Your task to perform on an android device: Empty the shopping cart on newegg.com. Add razer blackwidow to the cart on newegg.com Image 0: 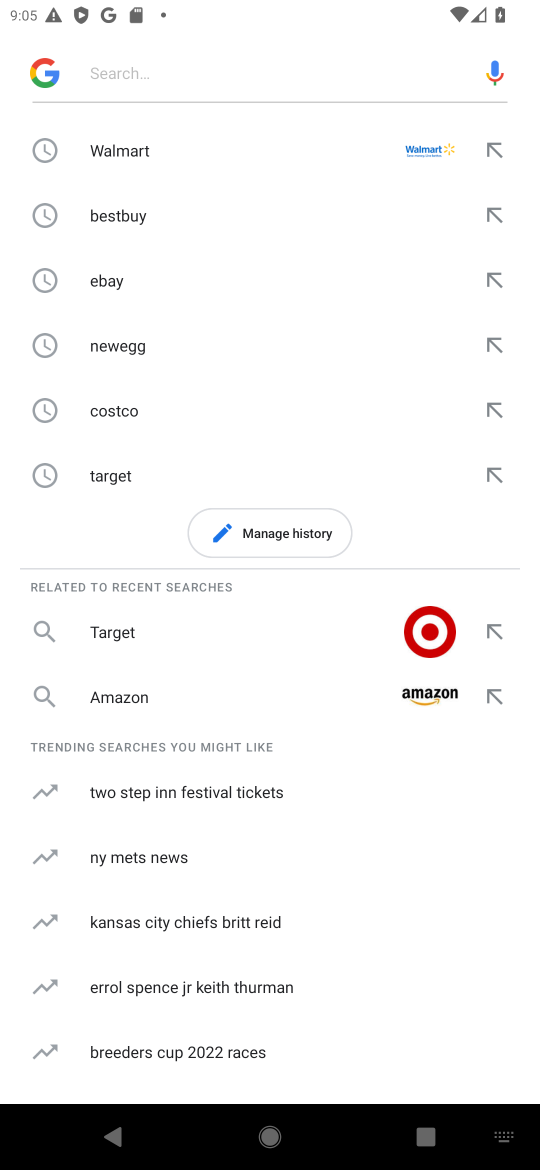
Step 0: type "newegg.com"
Your task to perform on an android device: Empty the shopping cart on newegg.com. Add razer blackwidow to the cart on newegg.com Image 1: 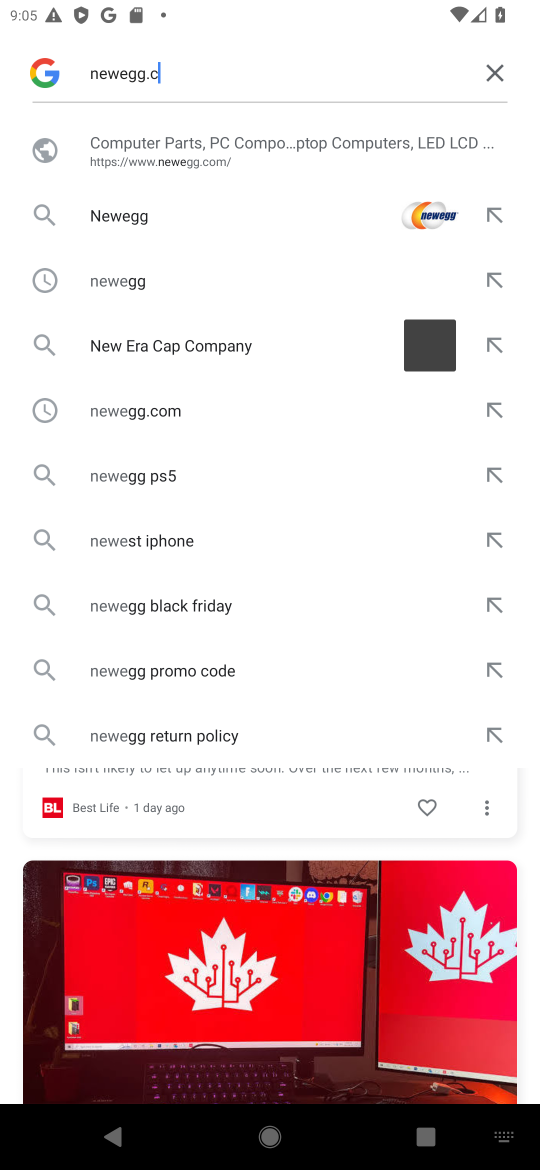
Step 1: type ""
Your task to perform on an android device: Empty the shopping cart on newegg.com. Add razer blackwidow to the cart on newegg.com Image 2: 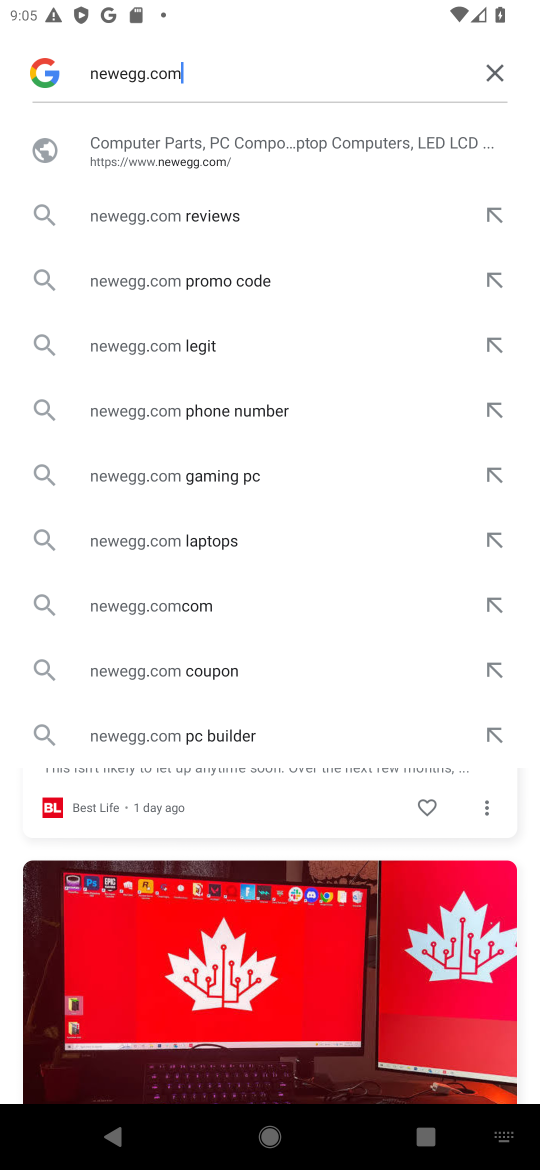
Step 2: click (231, 152)
Your task to perform on an android device: Empty the shopping cart on newegg.com. Add razer blackwidow to the cart on newegg.com Image 3: 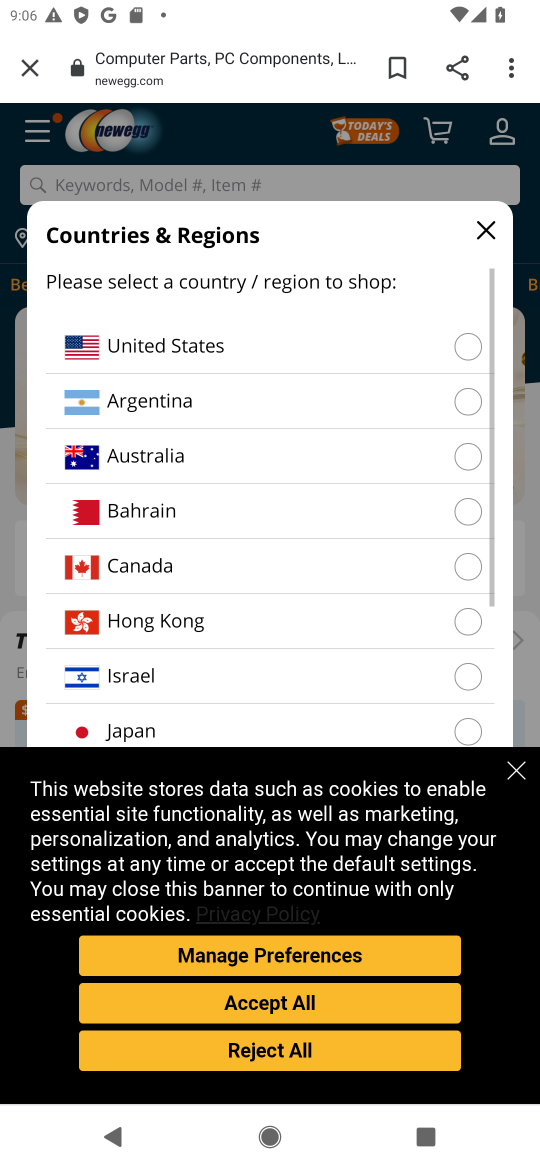
Step 3: click (303, 331)
Your task to perform on an android device: Empty the shopping cart on newegg.com. Add razer blackwidow to the cart on newegg.com Image 4: 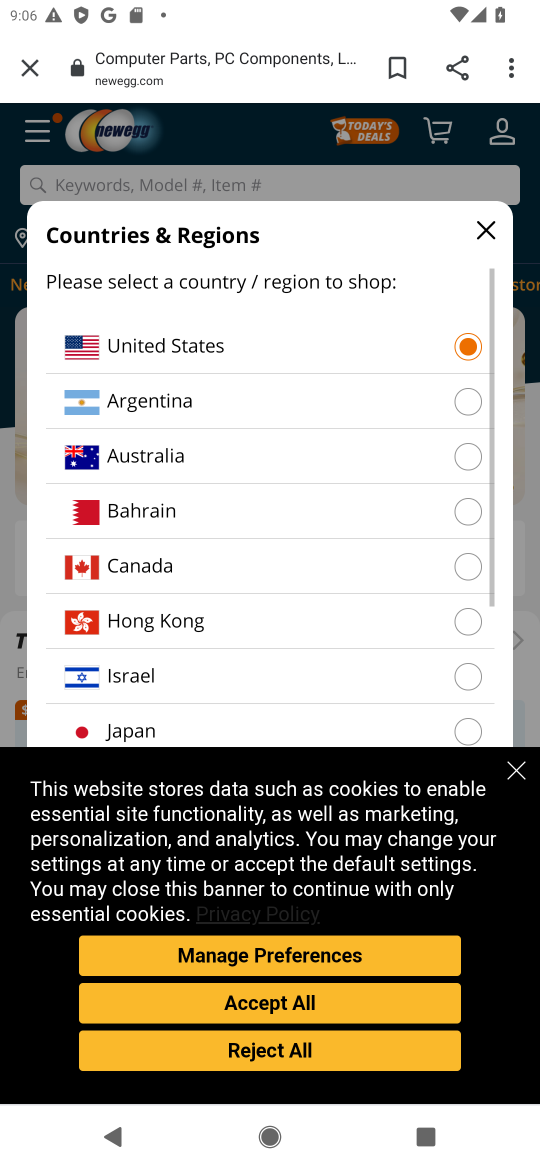
Step 4: drag from (332, 480) to (344, 192)
Your task to perform on an android device: Empty the shopping cart on newegg.com. Add razer blackwidow to the cart on newegg.com Image 5: 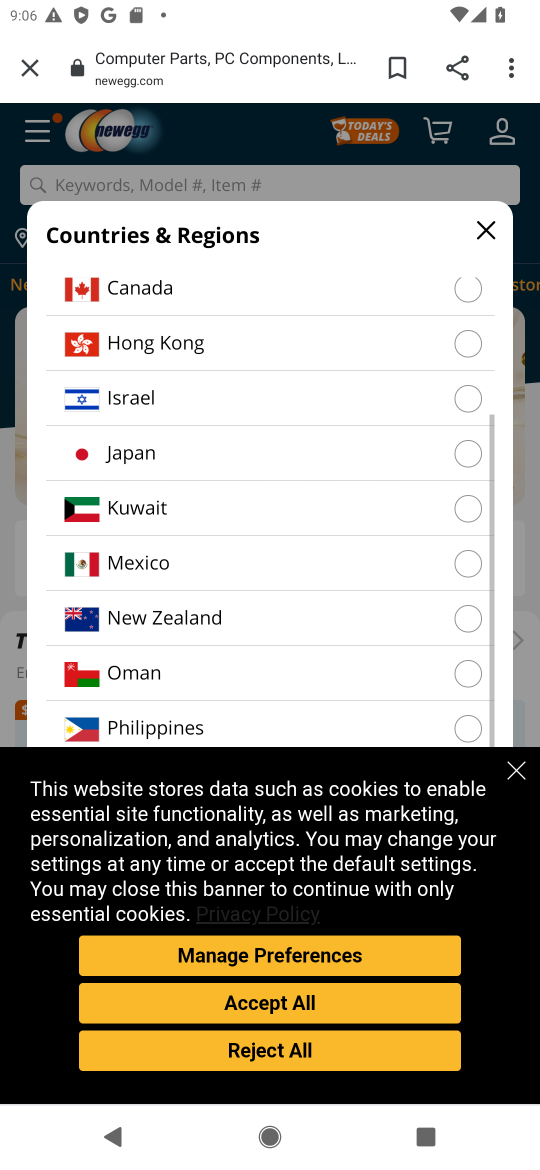
Step 5: drag from (316, 452) to (346, 265)
Your task to perform on an android device: Empty the shopping cart on newegg.com. Add razer blackwidow to the cart on newegg.com Image 6: 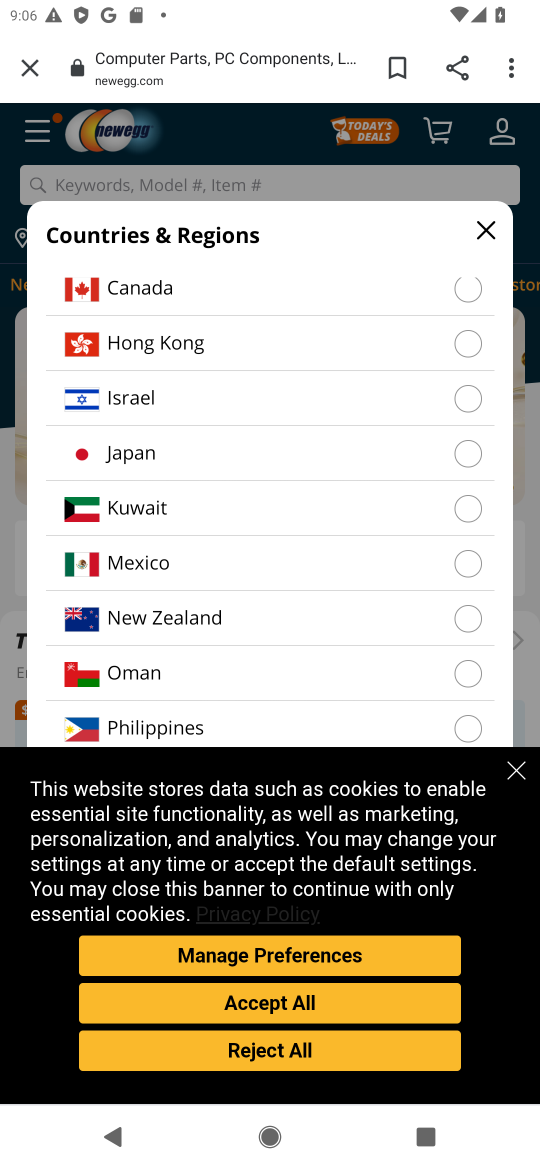
Step 6: drag from (315, 615) to (337, 309)
Your task to perform on an android device: Empty the shopping cart on newegg.com. Add razer blackwidow to the cart on newegg.com Image 7: 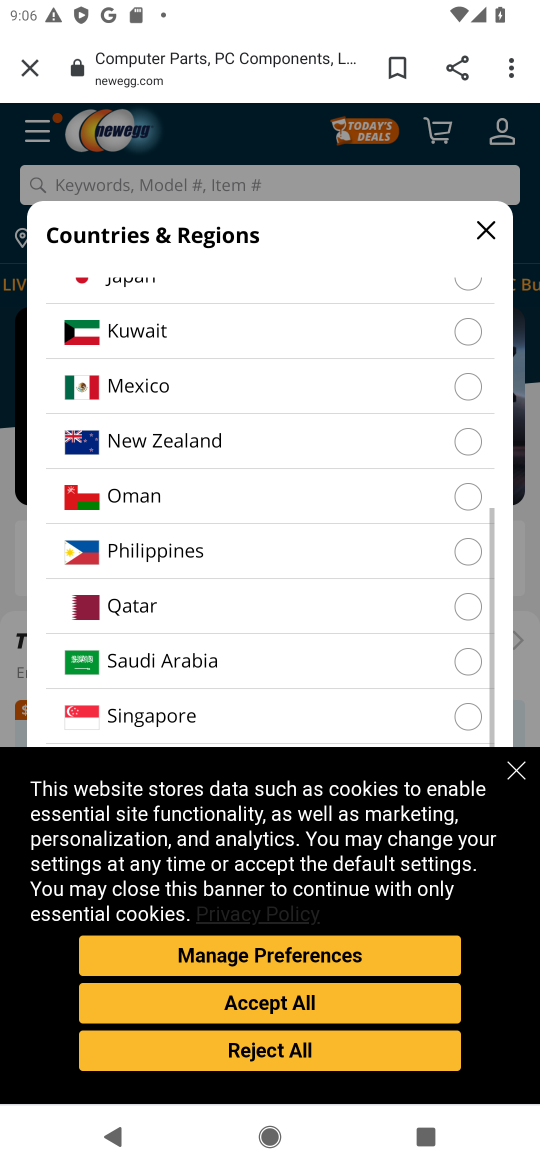
Step 7: drag from (304, 389) to (309, 314)
Your task to perform on an android device: Empty the shopping cart on newegg.com. Add razer blackwidow to the cart on newegg.com Image 8: 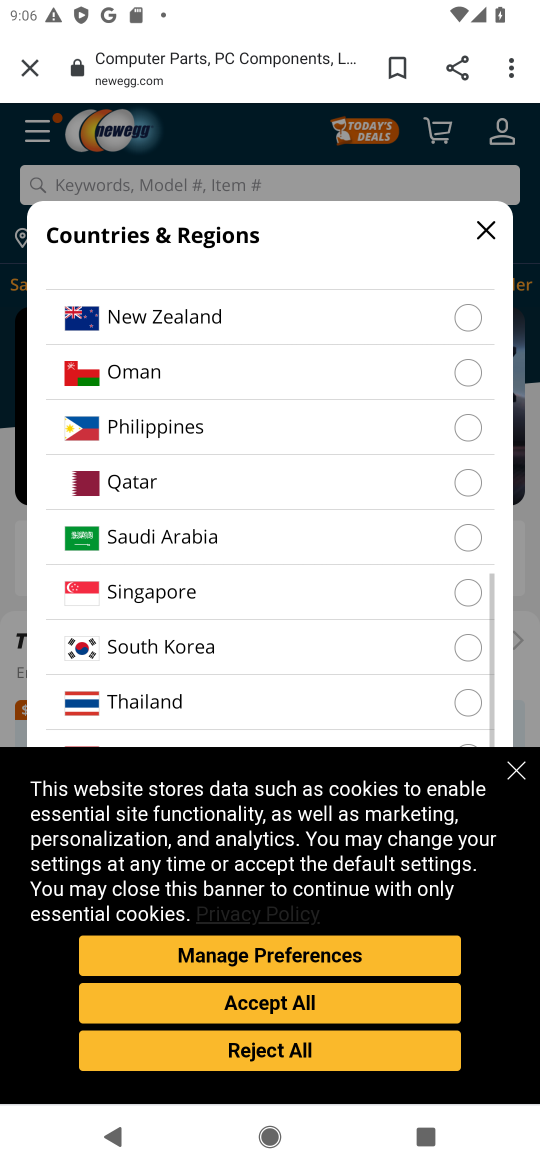
Step 8: drag from (284, 708) to (331, 325)
Your task to perform on an android device: Empty the shopping cart on newegg.com. Add razer blackwidow to the cart on newegg.com Image 9: 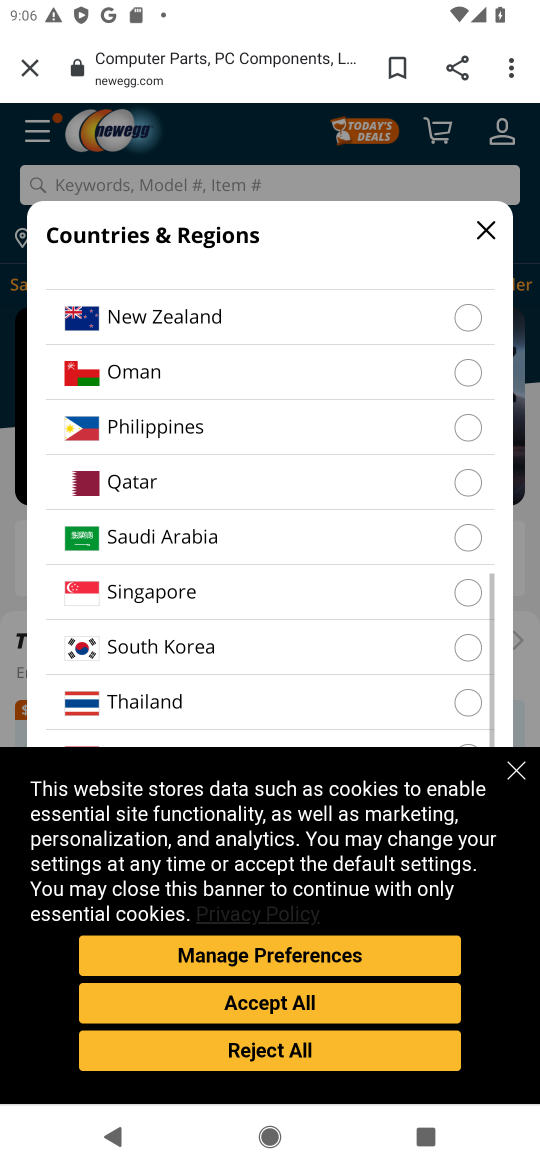
Step 9: drag from (267, 629) to (308, 299)
Your task to perform on an android device: Empty the shopping cart on newegg.com. Add razer blackwidow to the cart on newegg.com Image 10: 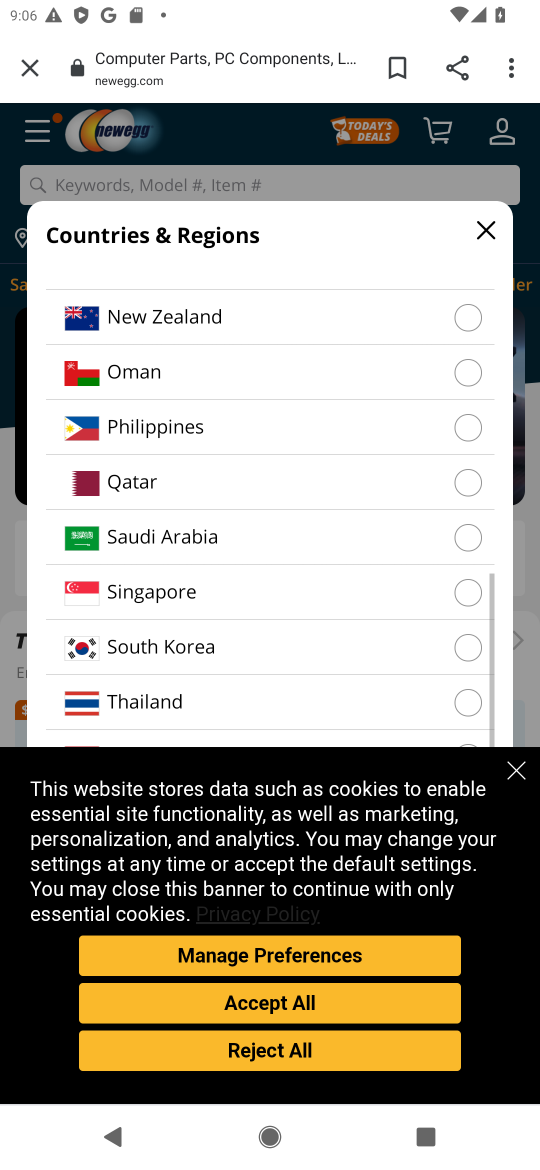
Step 10: drag from (256, 711) to (290, 345)
Your task to perform on an android device: Empty the shopping cart on newegg.com. Add razer blackwidow to the cart on newegg.com Image 11: 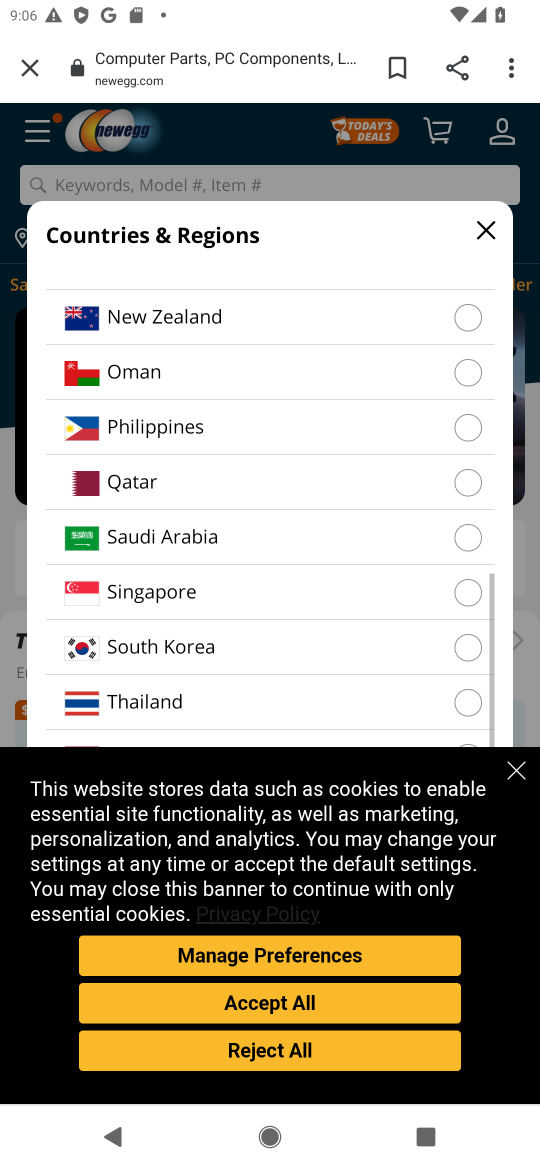
Step 11: drag from (279, 368) to (299, 296)
Your task to perform on an android device: Empty the shopping cart on newegg.com. Add razer blackwidow to the cart on newegg.com Image 12: 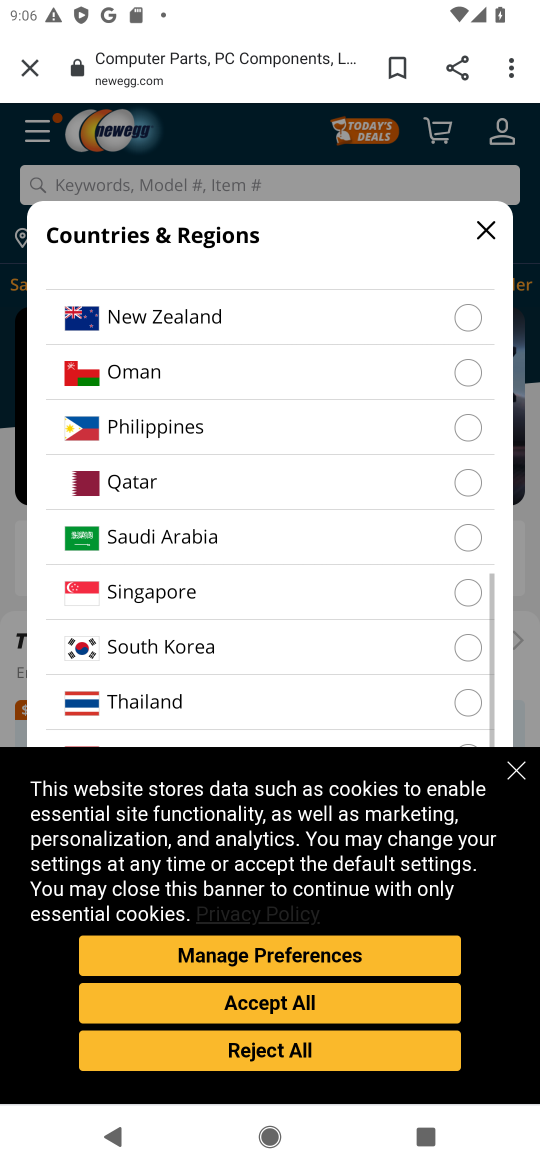
Step 12: drag from (294, 597) to (342, 193)
Your task to perform on an android device: Empty the shopping cart on newegg.com. Add razer blackwidow to the cart on newegg.com Image 13: 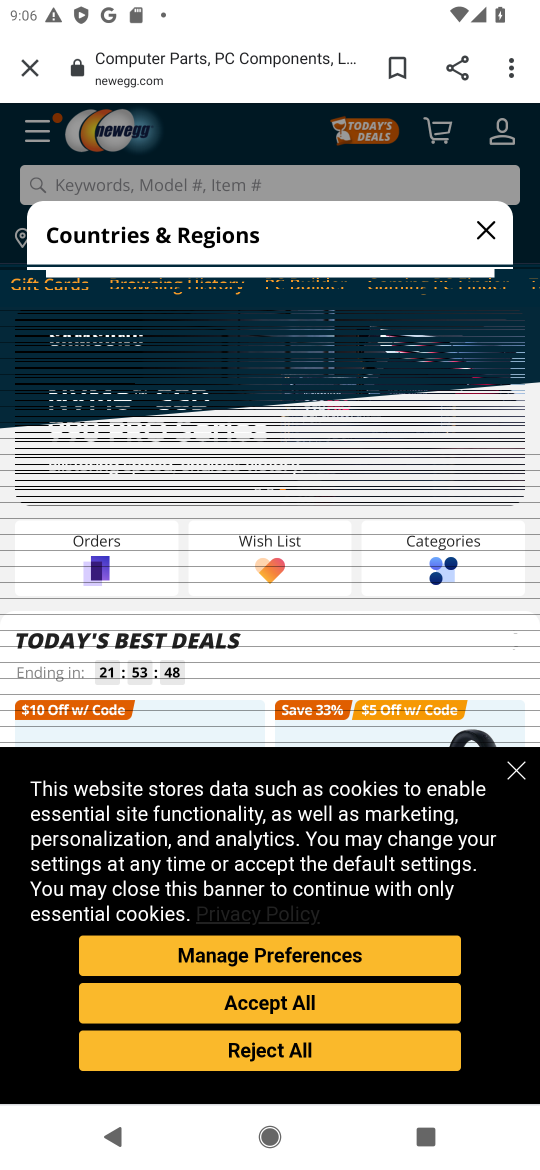
Step 13: drag from (318, 242) to (323, 315)
Your task to perform on an android device: Empty the shopping cart on newegg.com. Add razer blackwidow to the cart on newegg.com Image 14: 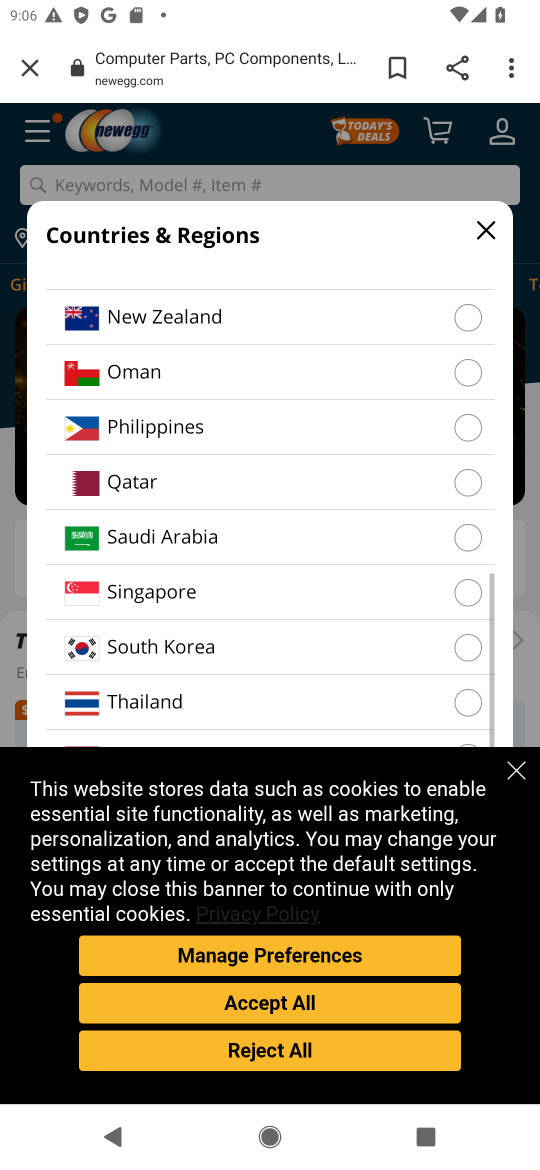
Step 14: click (354, 1051)
Your task to perform on an android device: Empty the shopping cart on newegg.com. Add razer blackwidow to the cart on newegg.com Image 15: 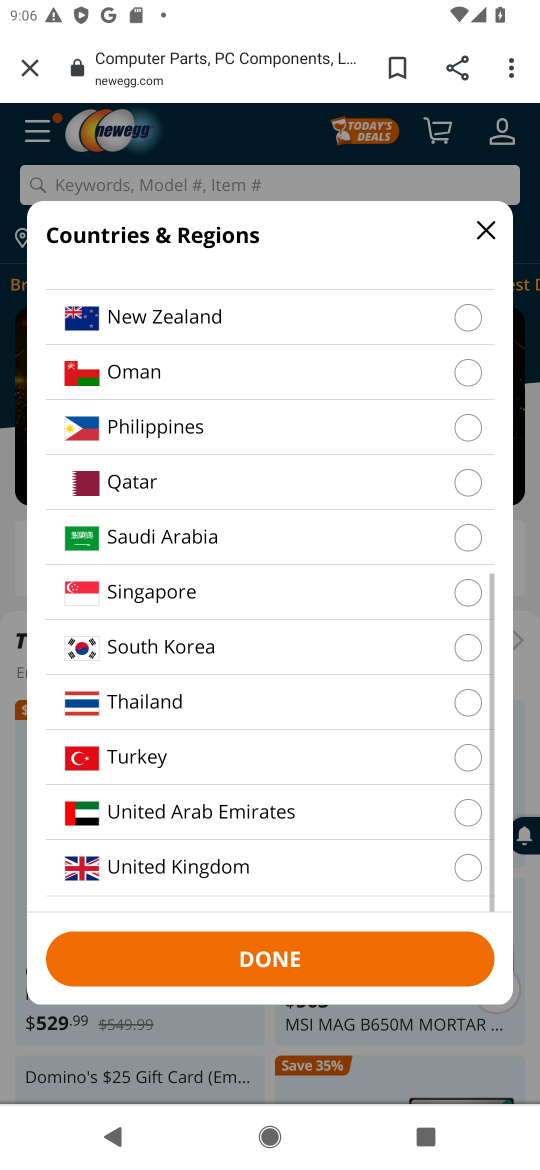
Step 15: click (327, 943)
Your task to perform on an android device: Empty the shopping cart on newegg.com. Add razer blackwidow to the cart on newegg.com Image 16: 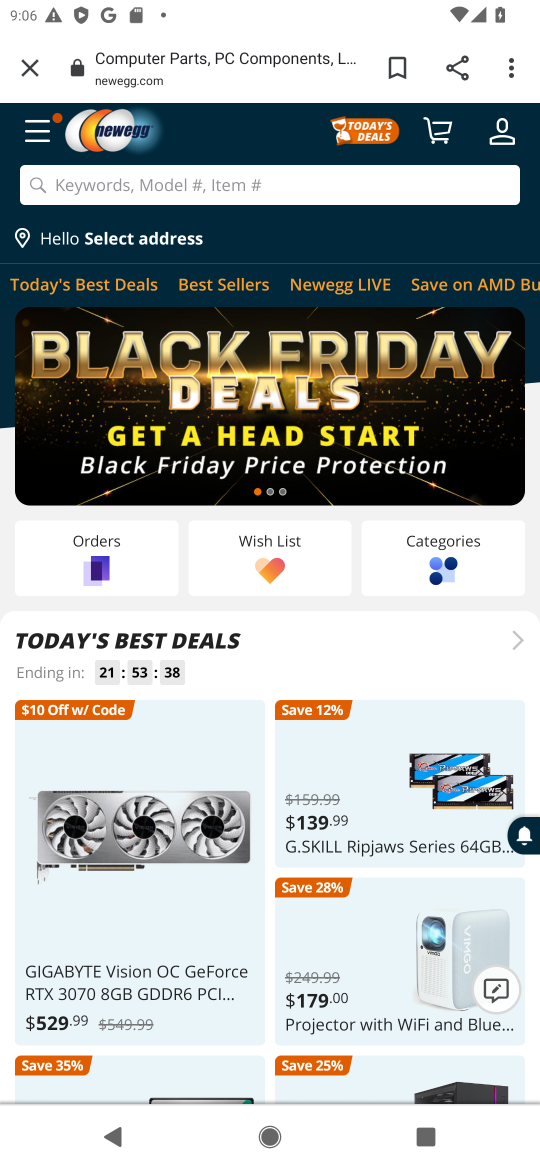
Step 16: click (193, 189)
Your task to perform on an android device: Empty the shopping cart on newegg.com. Add razer blackwidow to the cart on newegg.com Image 17: 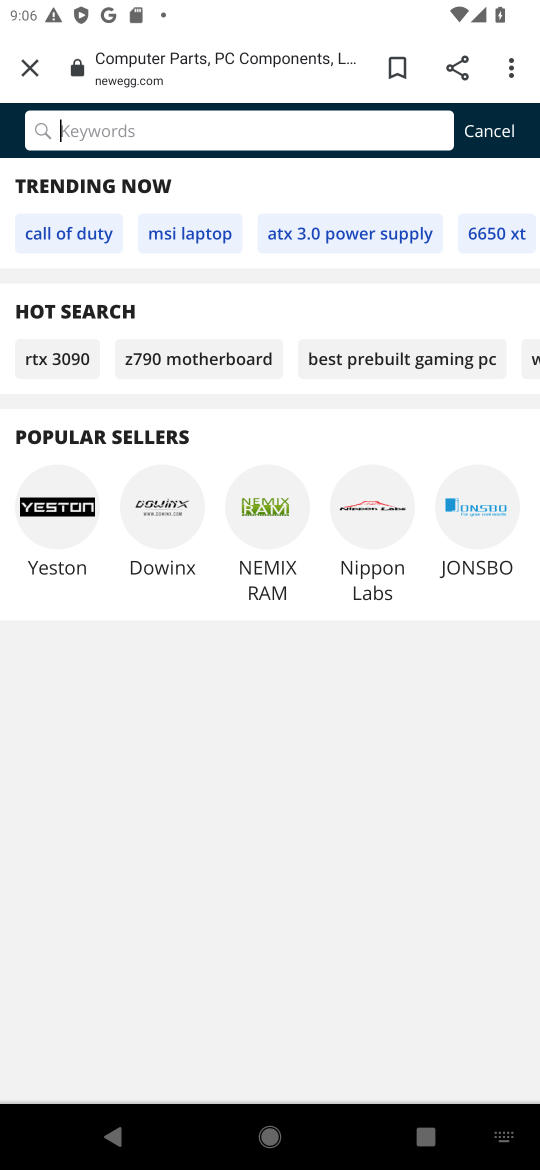
Step 17: type "razer blackwidow"
Your task to perform on an android device: Empty the shopping cart on newegg.com. Add razer blackwidow to the cart on newegg.com Image 18: 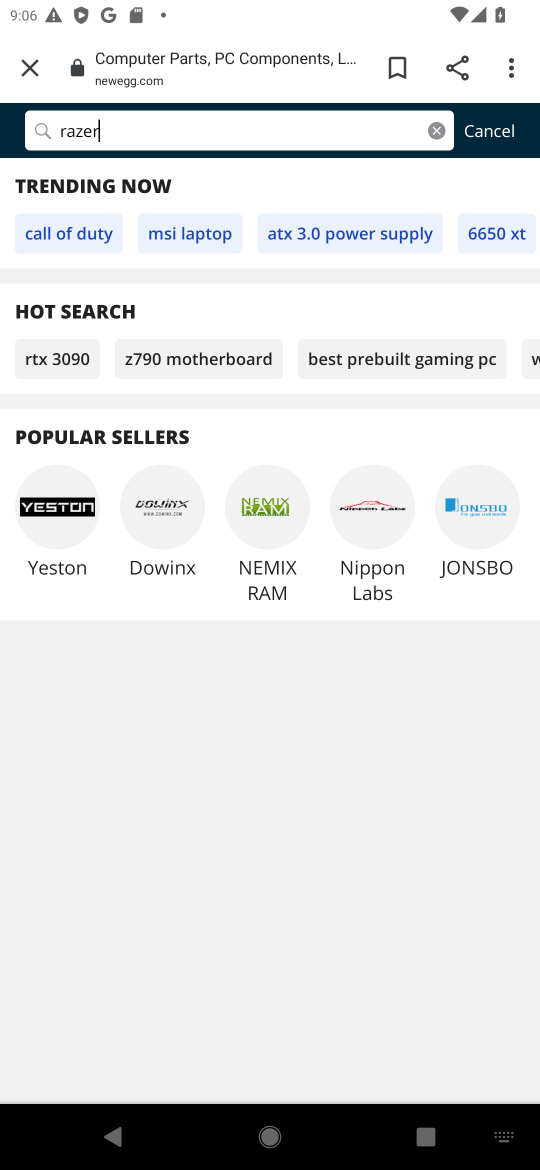
Step 18: type ""
Your task to perform on an android device: Empty the shopping cart on newegg.com. Add razer blackwidow to the cart on newegg.com Image 19: 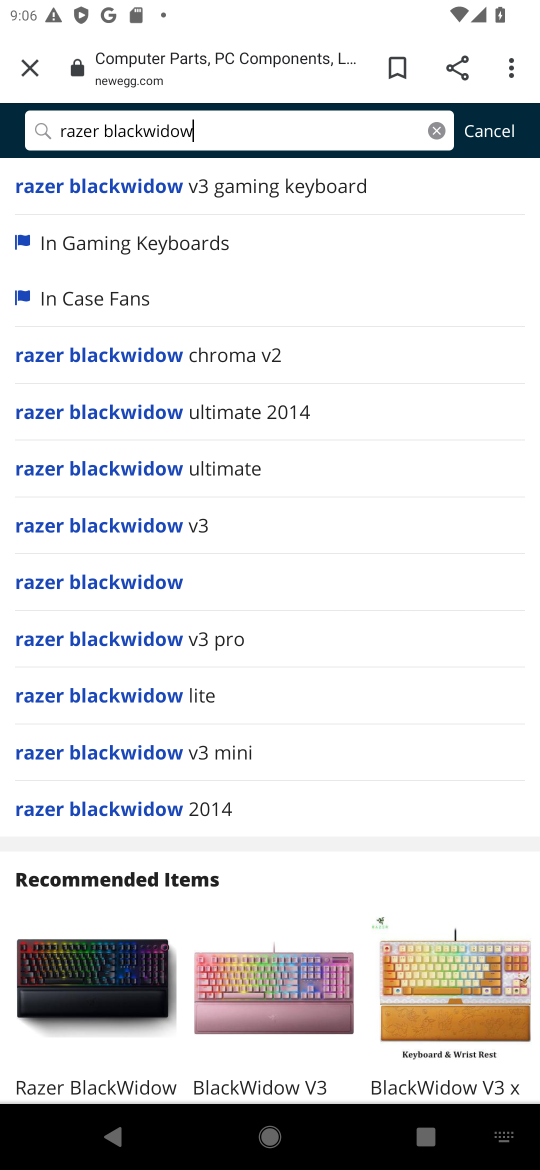
Step 19: press enter
Your task to perform on an android device: Empty the shopping cart on newegg.com. Add razer blackwidow to the cart on newegg.com Image 20: 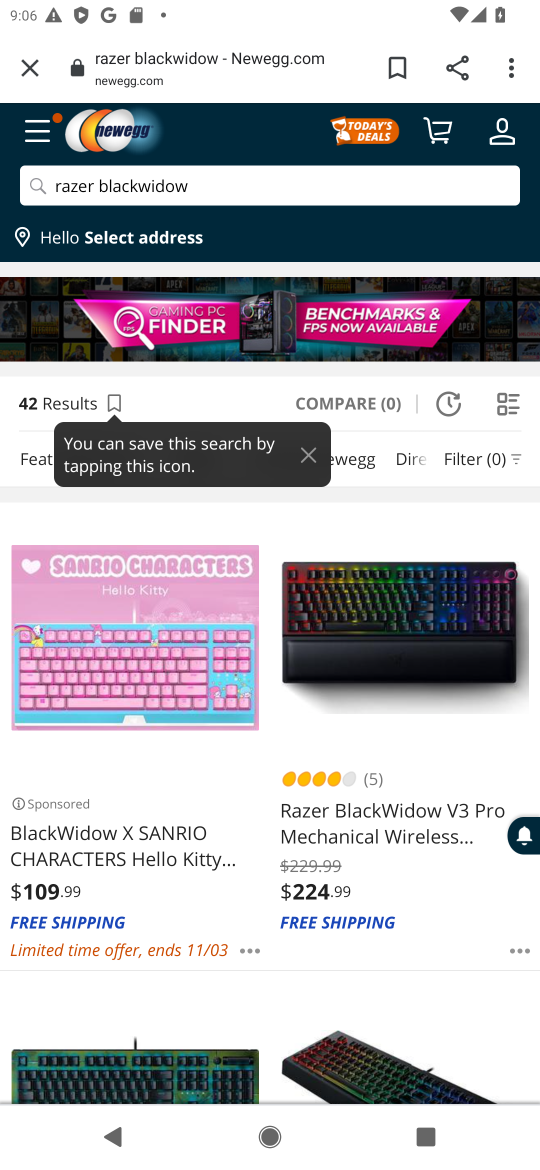
Step 20: click (307, 742)
Your task to perform on an android device: Empty the shopping cart on newegg.com. Add razer blackwidow to the cart on newegg.com Image 21: 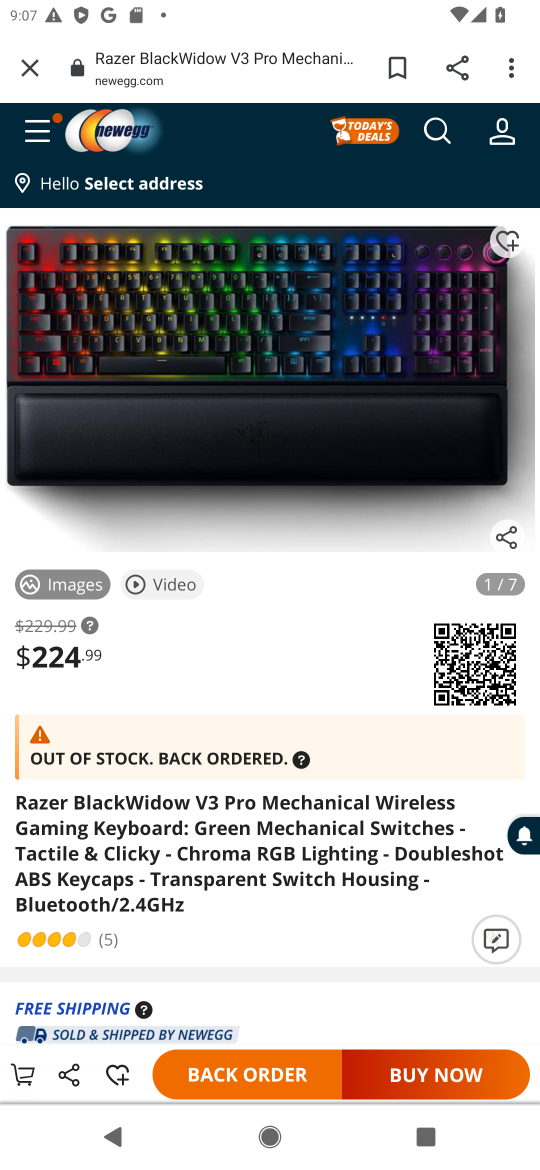
Step 21: drag from (333, 1019) to (335, 639)
Your task to perform on an android device: Empty the shopping cart on newegg.com. Add razer blackwidow to the cart on newegg.com Image 22: 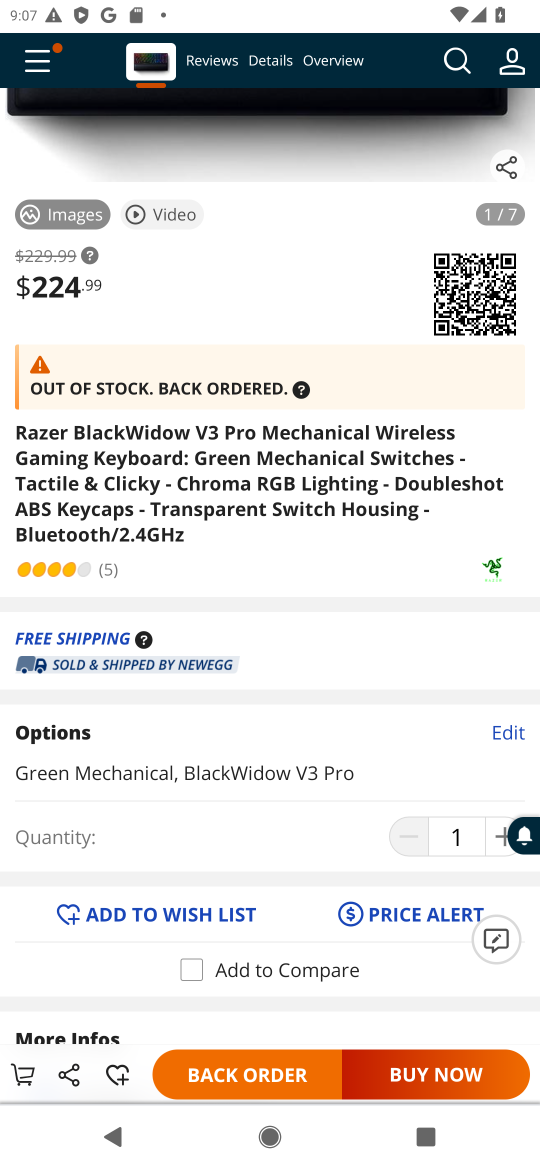
Step 22: click (245, 1071)
Your task to perform on an android device: Empty the shopping cart on newegg.com. Add razer blackwidow to the cart on newegg.com Image 23: 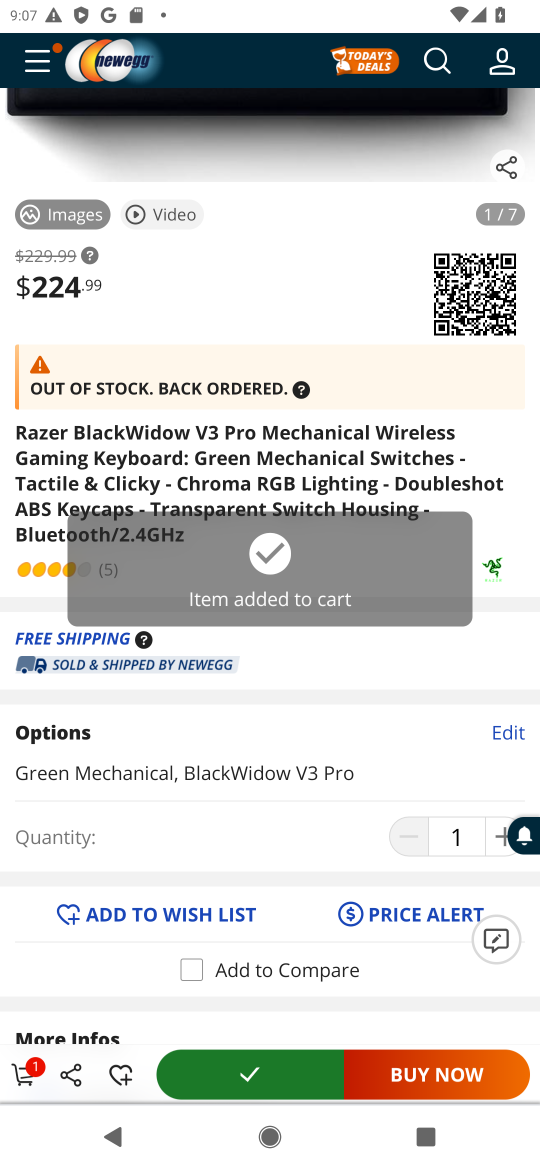
Step 23: click (38, 1064)
Your task to perform on an android device: Empty the shopping cart on newegg.com. Add razer blackwidow to the cart on newegg.com Image 24: 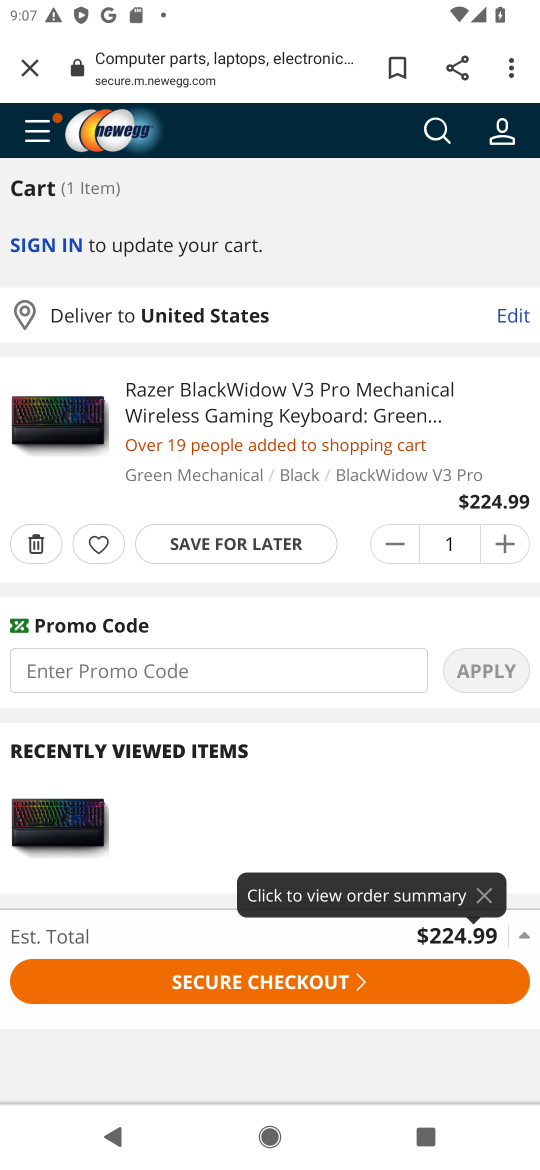
Step 24: click (406, 970)
Your task to perform on an android device: Empty the shopping cart on newegg.com. Add razer blackwidow to the cart on newegg.com Image 25: 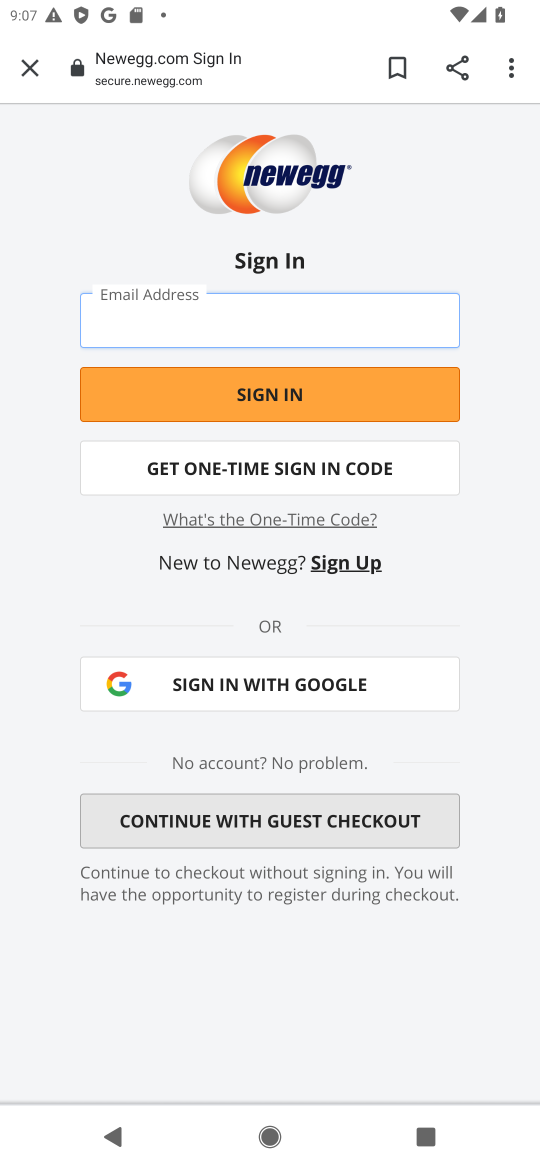
Step 25: click (381, 803)
Your task to perform on an android device: Empty the shopping cart on newegg.com. Add razer blackwidow to the cart on newegg.com Image 26: 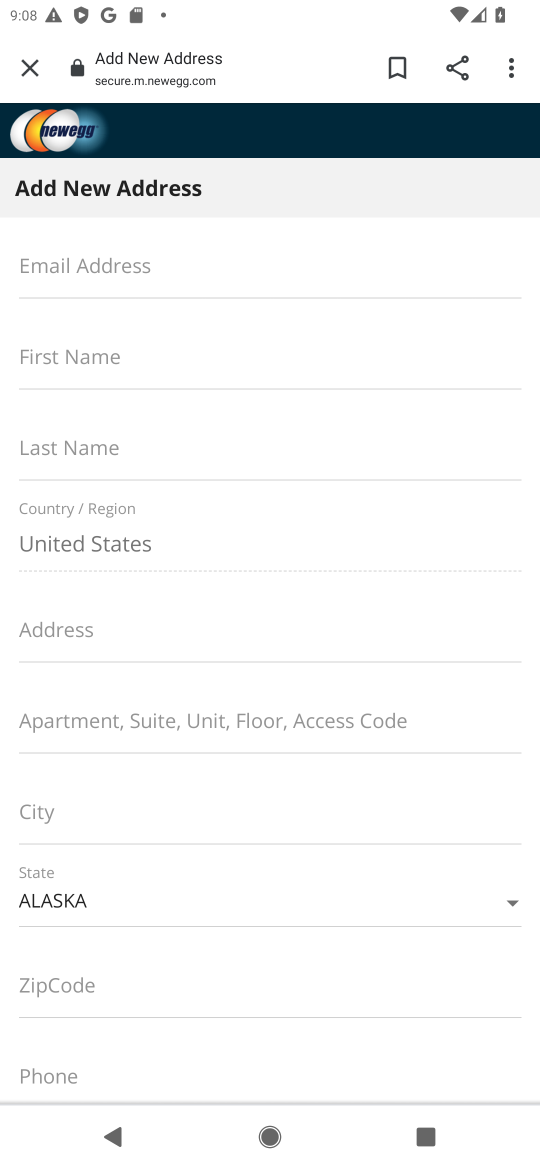
Step 26: task complete